Your task to perform on an android device: Find coffee shops on Maps Image 0: 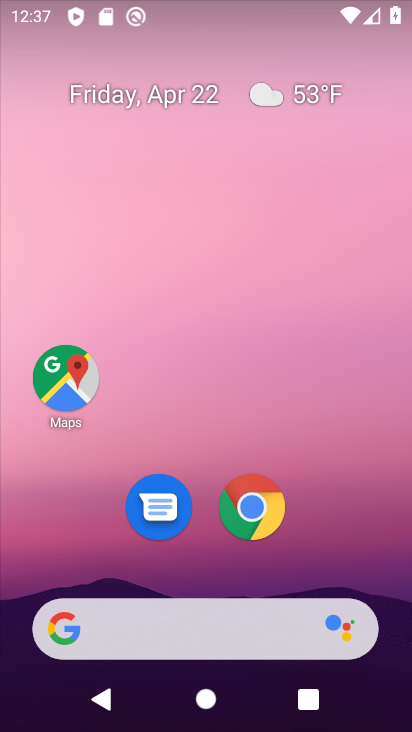
Step 0: click (65, 368)
Your task to perform on an android device: Find coffee shops on Maps Image 1: 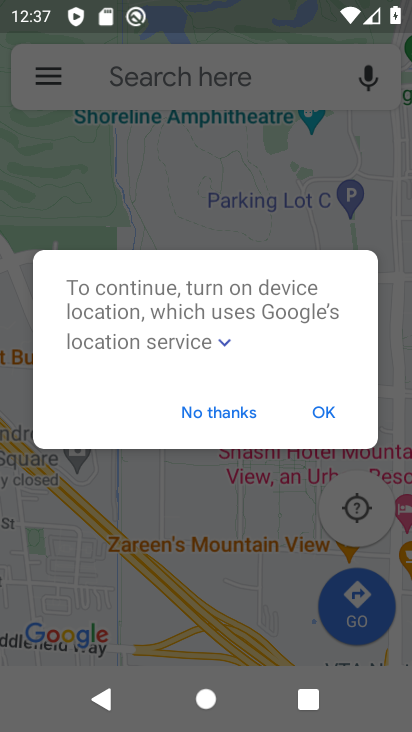
Step 1: click (192, 100)
Your task to perform on an android device: Find coffee shops on Maps Image 2: 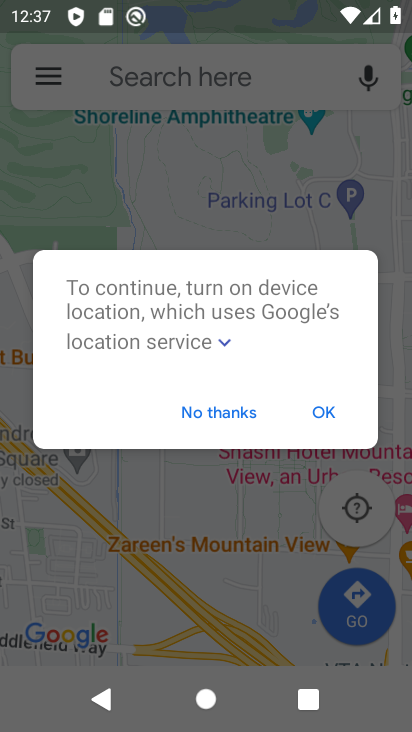
Step 2: click (206, 84)
Your task to perform on an android device: Find coffee shops on Maps Image 3: 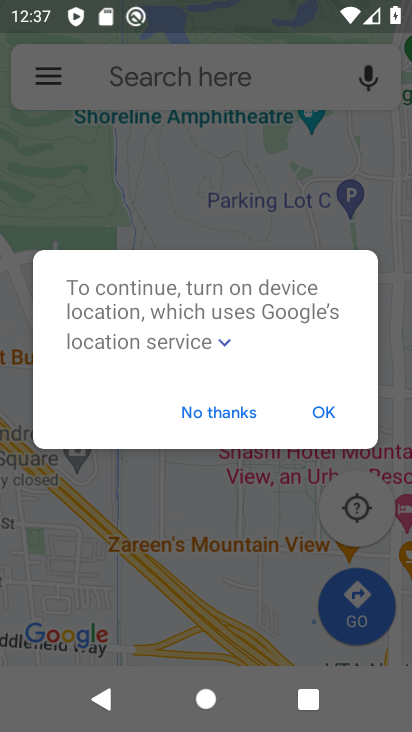
Step 3: click (221, 72)
Your task to perform on an android device: Find coffee shops on Maps Image 4: 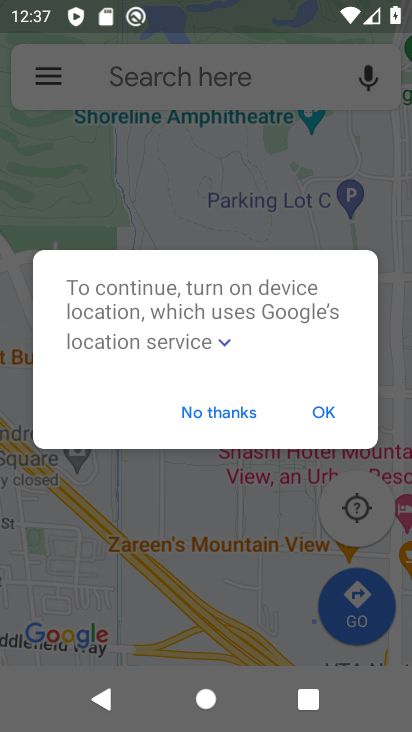
Step 4: click (319, 412)
Your task to perform on an android device: Find coffee shops on Maps Image 5: 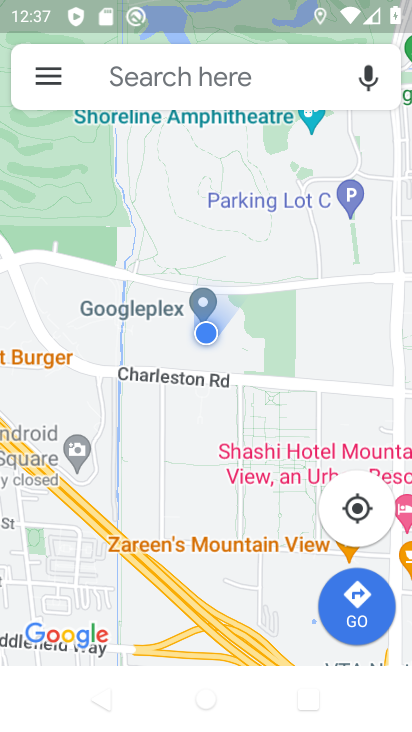
Step 5: click (185, 85)
Your task to perform on an android device: Find coffee shops on Maps Image 6: 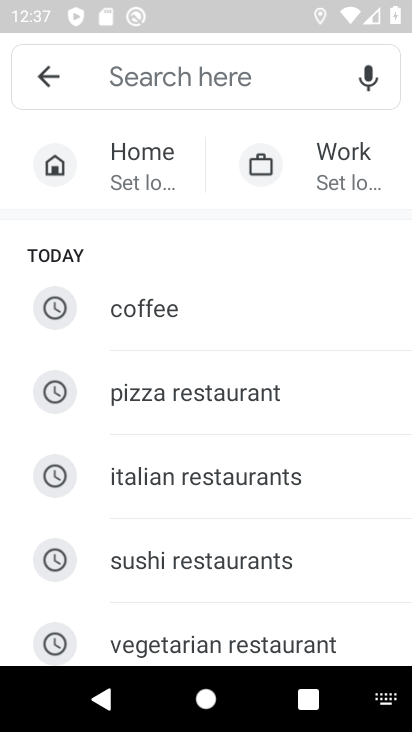
Step 6: click (86, 295)
Your task to perform on an android device: Find coffee shops on Maps Image 7: 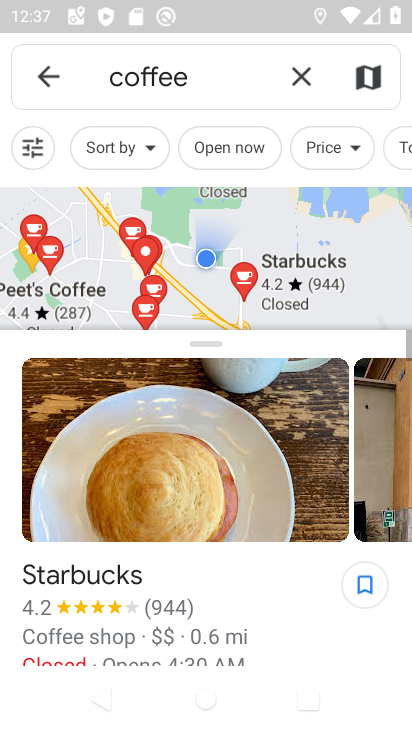
Step 7: task complete